Your task to perform on an android device: turn on improve location accuracy Image 0: 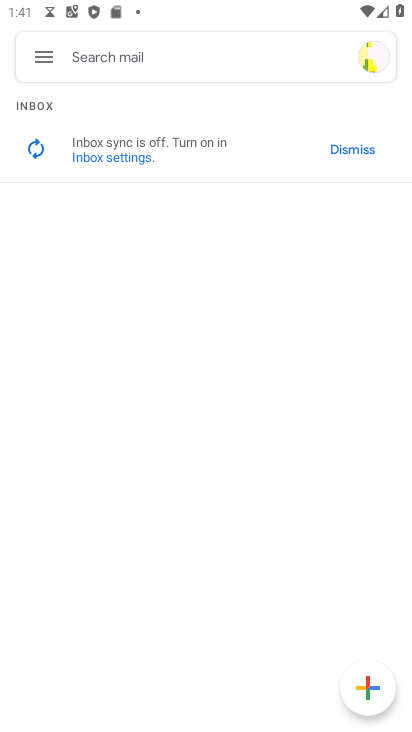
Step 0: press back button
Your task to perform on an android device: turn on improve location accuracy Image 1: 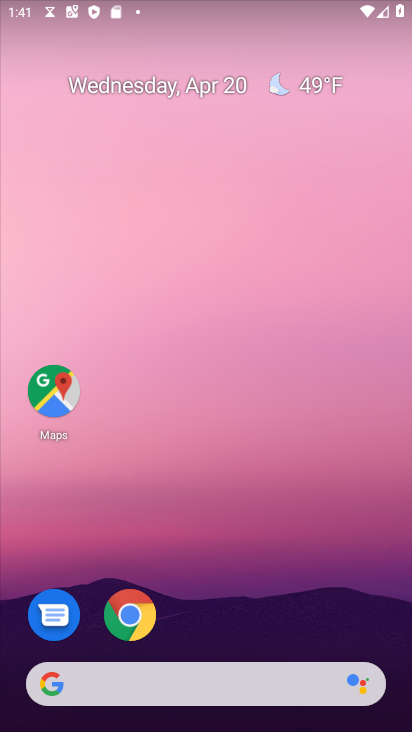
Step 1: drag from (9, 634) to (212, 243)
Your task to perform on an android device: turn on improve location accuracy Image 2: 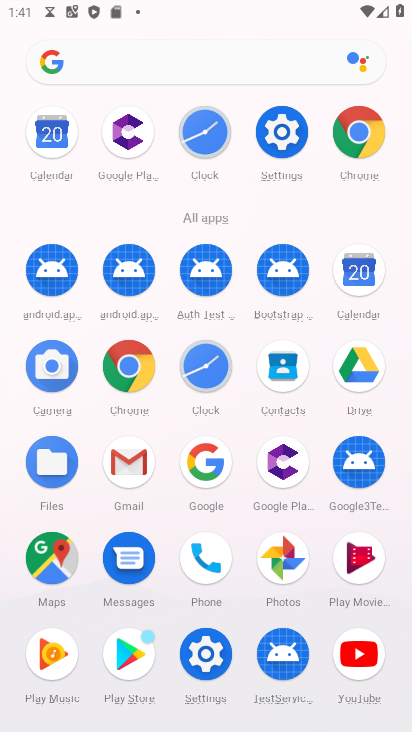
Step 2: click (278, 141)
Your task to perform on an android device: turn on improve location accuracy Image 3: 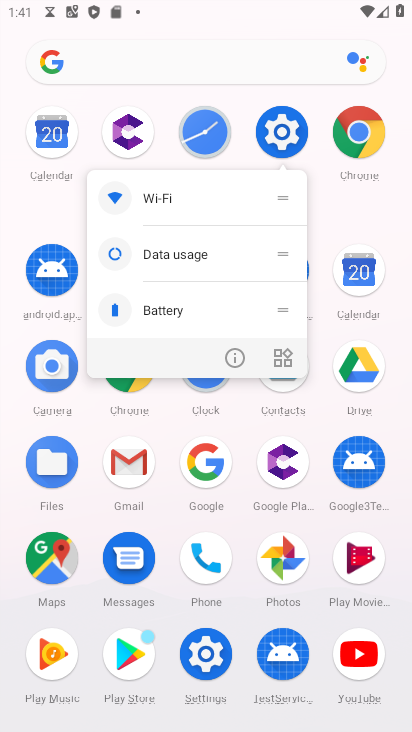
Step 3: click (293, 137)
Your task to perform on an android device: turn on improve location accuracy Image 4: 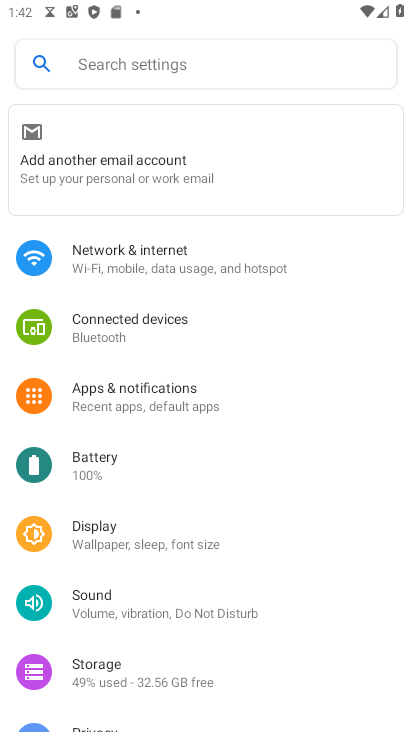
Step 4: drag from (22, 644) to (202, 363)
Your task to perform on an android device: turn on improve location accuracy Image 5: 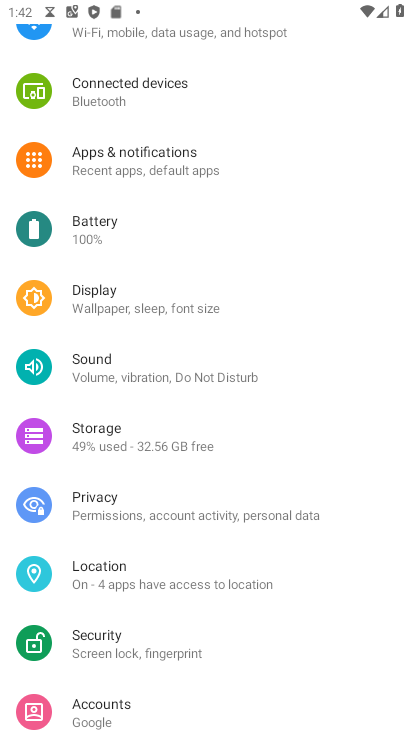
Step 5: click (129, 572)
Your task to perform on an android device: turn on improve location accuracy Image 6: 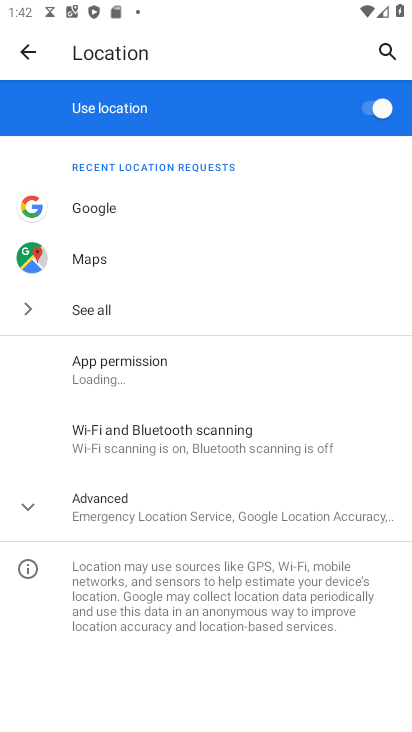
Step 6: click (158, 505)
Your task to perform on an android device: turn on improve location accuracy Image 7: 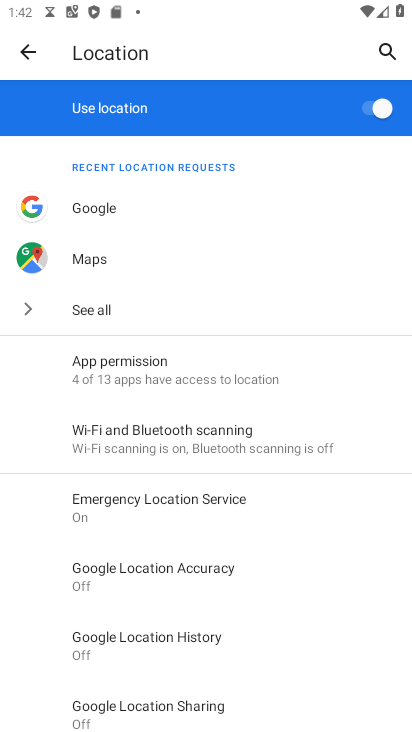
Step 7: click (124, 569)
Your task to perform on an android device: turn on improve location accuracy Image 8: 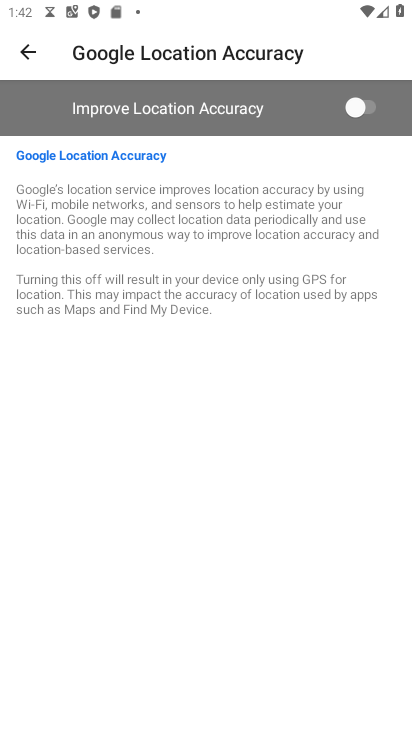
Step 8: click (356, 97)
Your task to perform on an android device: turn on improve location accuracy Image 9: 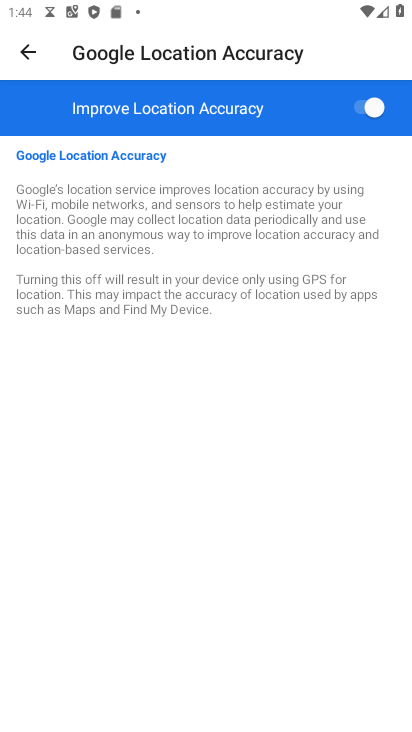
Step 9: task complete